Your task to perform on an android device: Open notification settings Image 0: 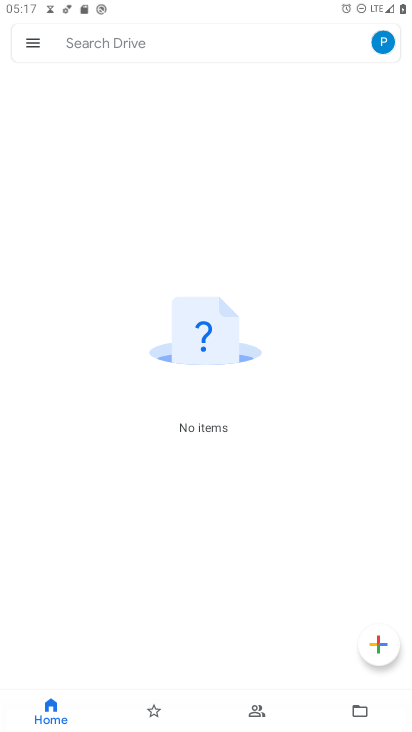
Step 0: press home button
Your task to perform on an android device: Open notification settings Image 1: 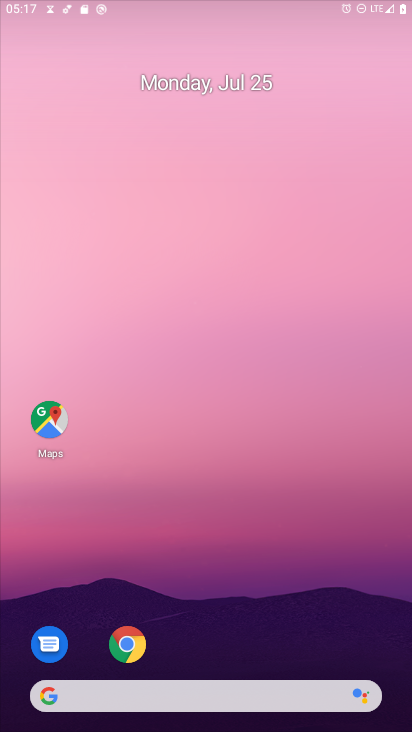
Step 1: drag from (253, 607) to (252, 57)
Your task to perform on an android device: Open notification settings Image 2: 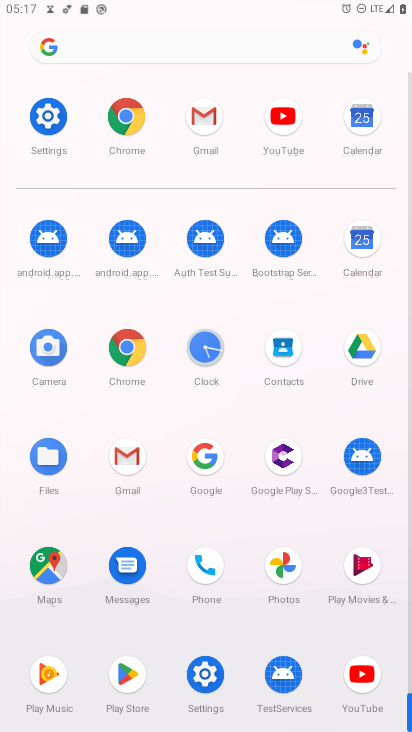
Step 2: click (43, 116)
Your task to perform on an android device: Open notification settings Image 3: 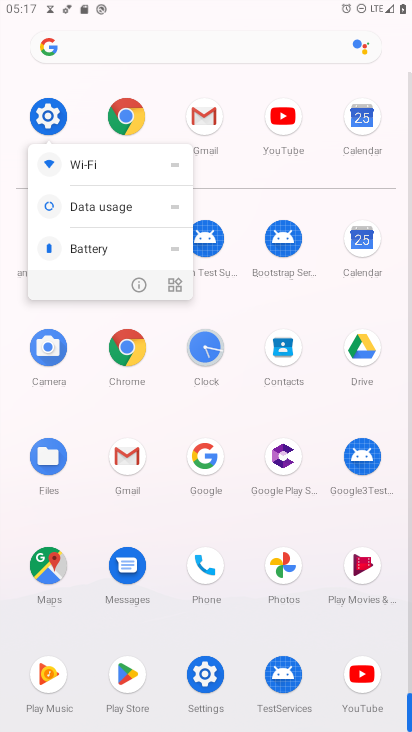
Step 3: click (52, 119)
Your task to perform on an android device: Open notification settings Image 4: 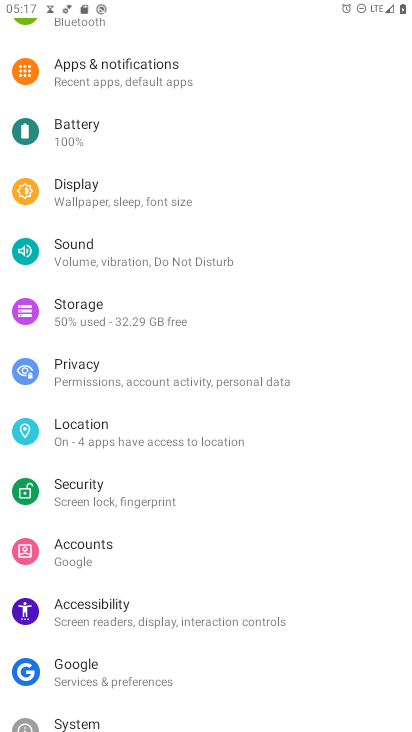
Step 4: click (121, 77)
Your task to perform on an android device: Open notification settings Image 5: 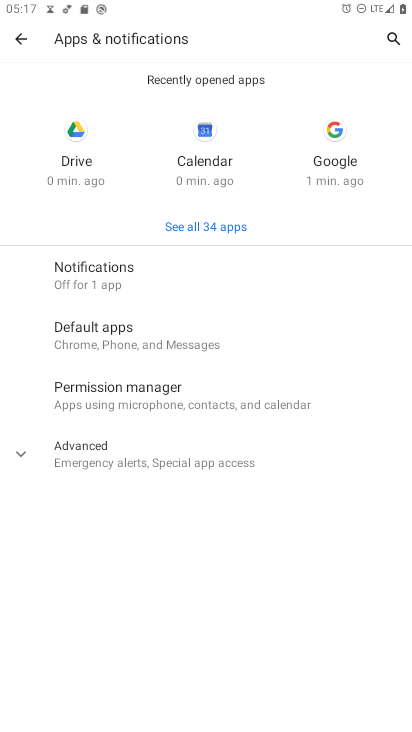
Step 5: click (94, 271)
Your task to perform on an android device: Open notification settings Image 6: 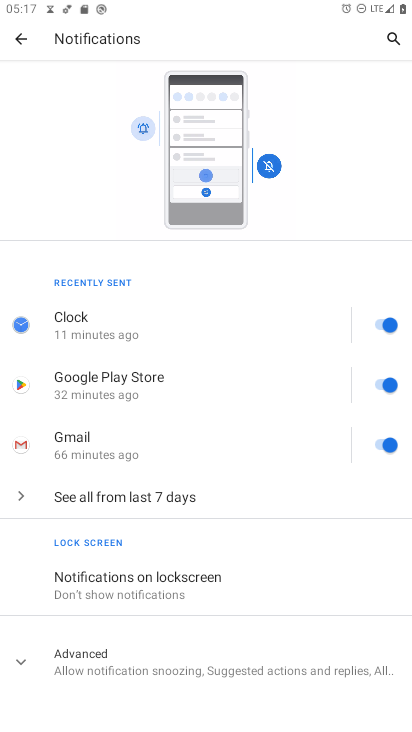
Step 6: task complete